Your task to perform on an android device: check data usage Image 0: 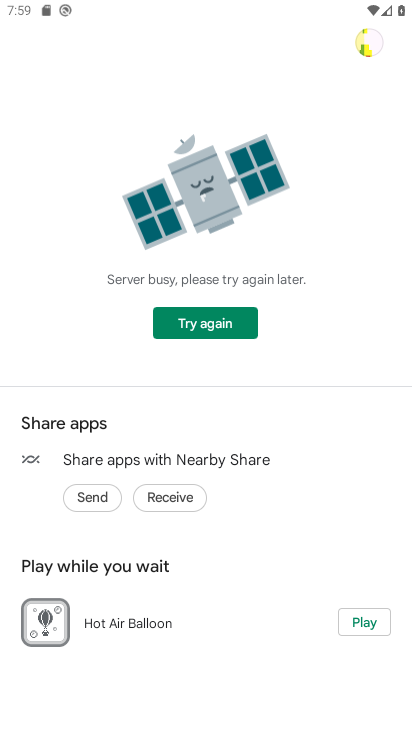
Step 0: press back button
Your task to perform on an android device: check data usage Image 1: 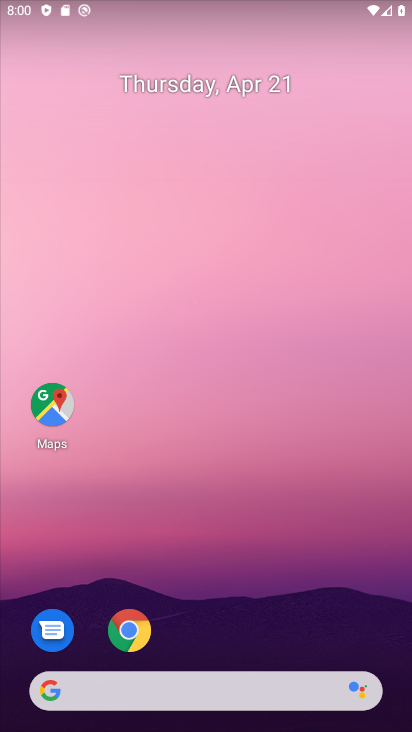
Step 1: drag from (238, 605) to (211, 111)
Your task to perform on an android device: check data usage Image 2: 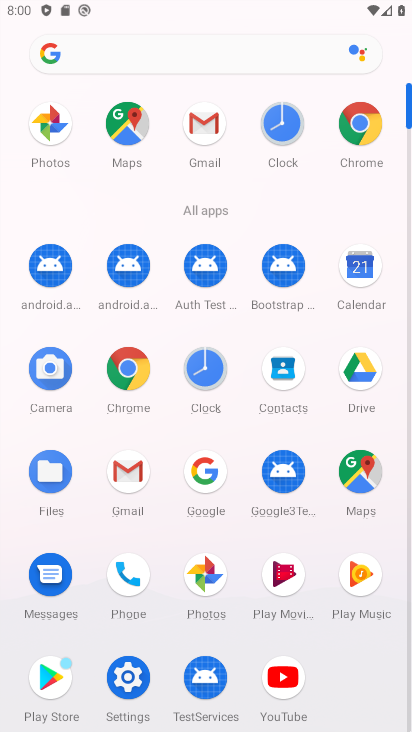
Step 2: click (138, 677)
Your task to perform on an android device: check data usage Image 3: 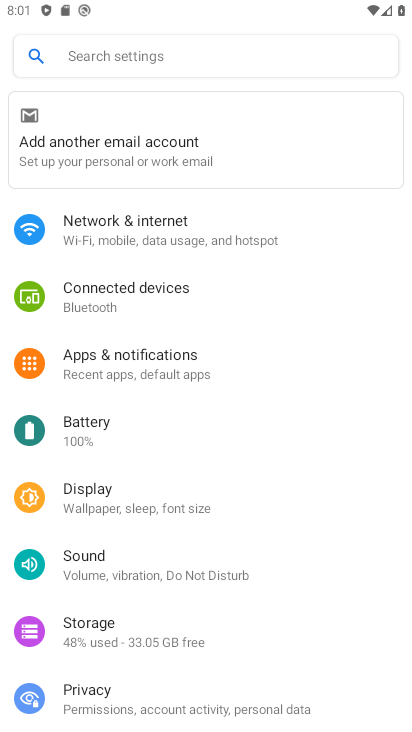
Step 3: click (190, 215)
Your task to perform on an android device: check data usage Image 4: 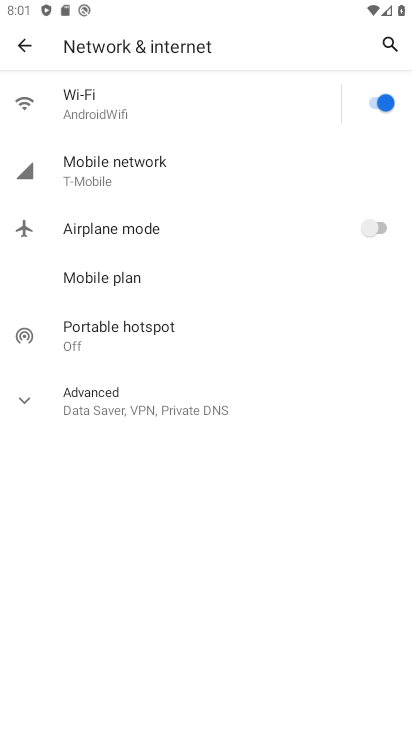
Step 4: click (203, 170)
Your task to perform on an android device: check data usage Image 5: 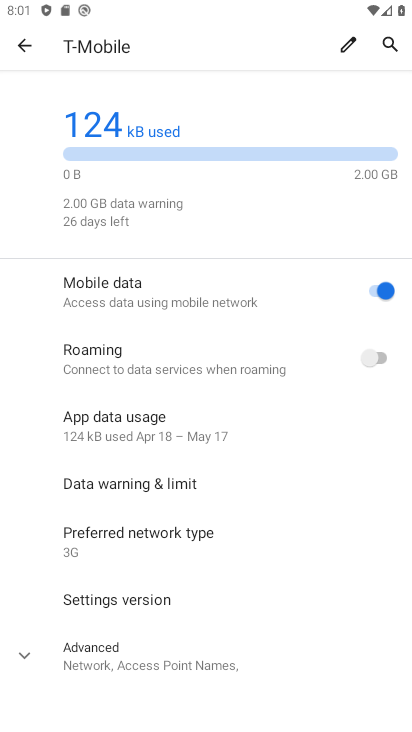
Step 5: click (205, 432)
Your task to perform on an android device: check data usage Image 6: 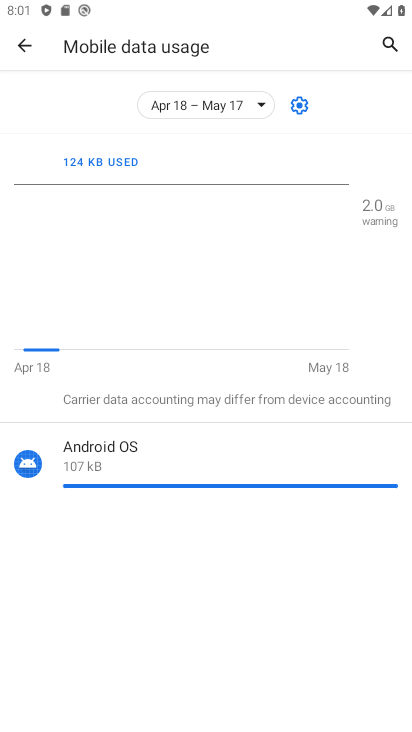
Step 6: task complete